Your task to perform on an android device: Go to display settings Image 0: 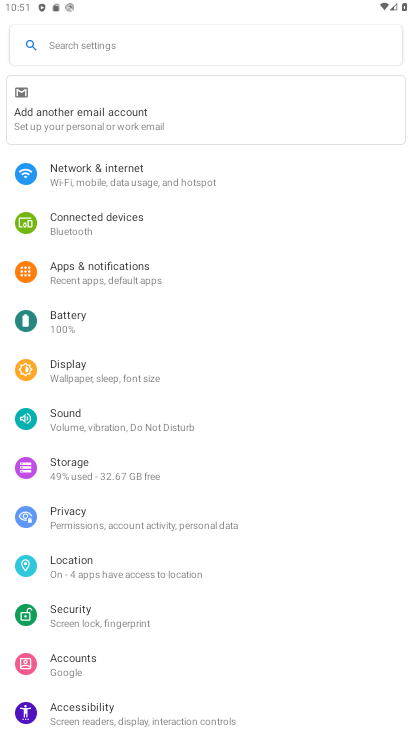
Step 0: click (77, 369)
Your task to perform on an android device: Go to display settings Image 1: 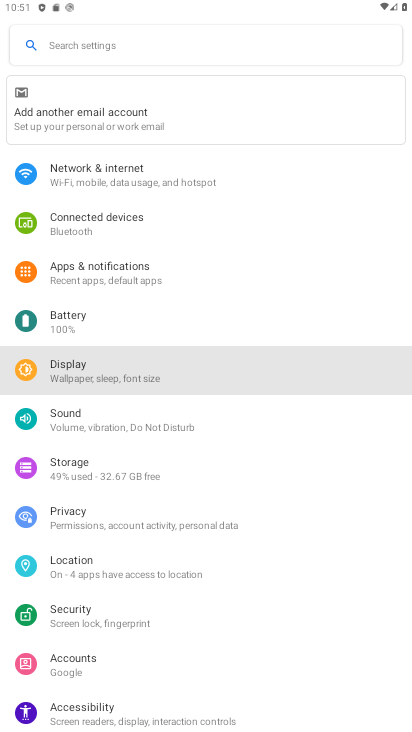
Step 1: click (76, 369)
Your task to perform on an android device: Go to display settings Image 2: 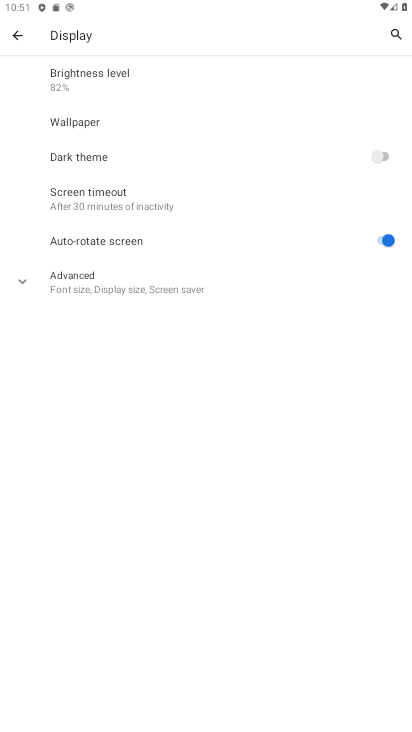
Step 2: task complete